Your task to perform on an android device: Go to Wikipedia Image 0: 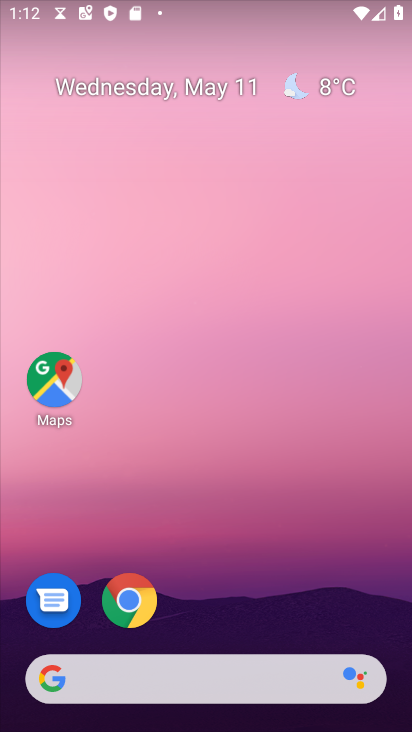
Step 0: click (138, 596)
Your task to perform on an android device: Go to Wikipedia Image 1: 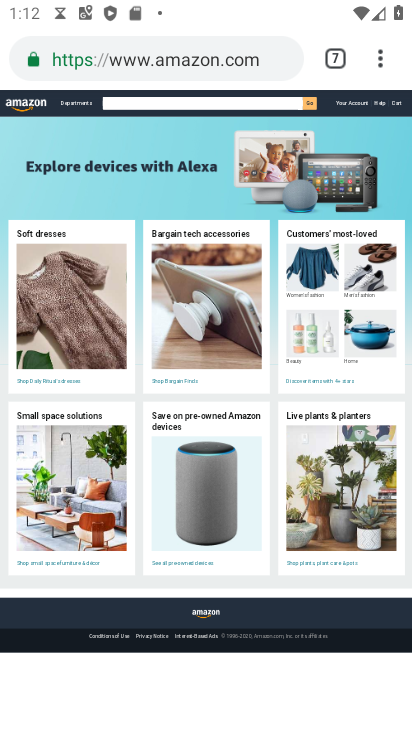
Step 1: click (331, 52)
Your task to perform on an android device: Go to Wikipedia Image 2: 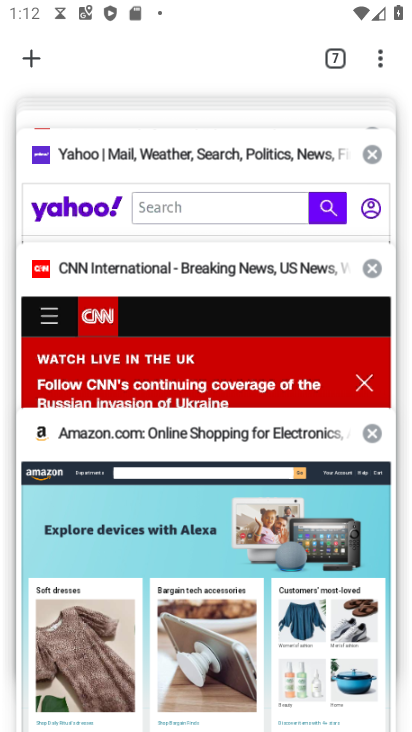
Step 2: drag from (179, 138) to (202, 658)
Your task to perform on an android device: Go to Wikipedia Image 3: 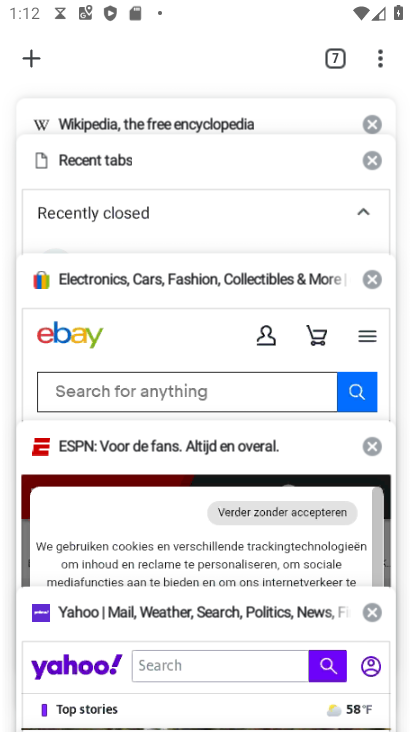
Step 3: click (111, 117)
Your task to perform on an android device: Go to Wikipedia Image 4: 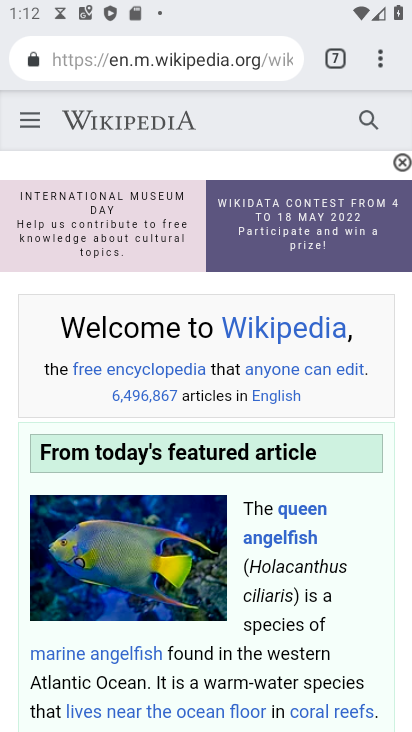
Step 4: task complete